Your task to perform on an android device: Search for Mexican restaurants on Maps Image 0: 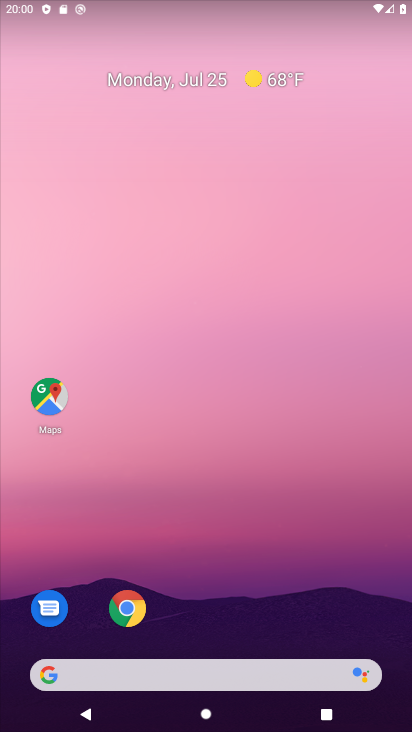
Step 0: click (52, 399)
Your task to perform on an android device: Search for Mexican restaurants on Maps Image 1: 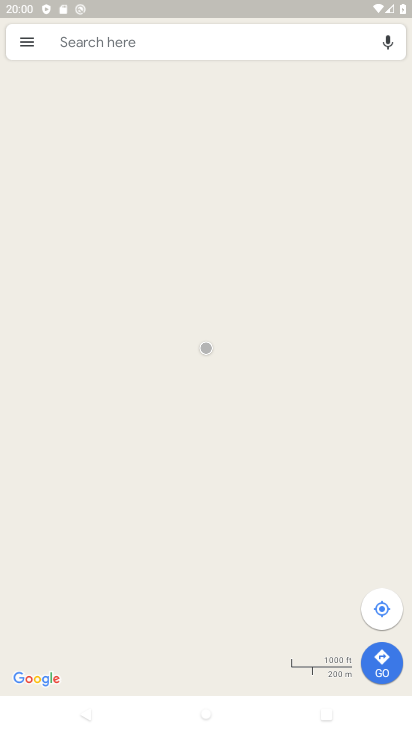
Step 1: click (97, 43)
Your task to perform on an android device: Search for Mexican restaurants on Maps Image 2: 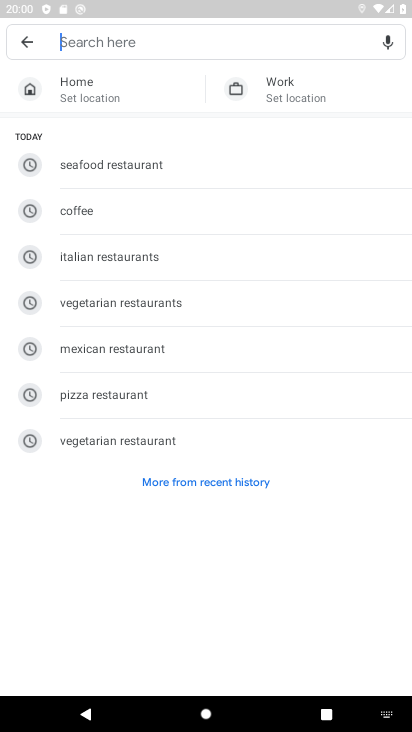
Step 2: type "Mexican restaurants"
Your task to perform on an android device: Search for Mexican restaurants on Maps Image 3: 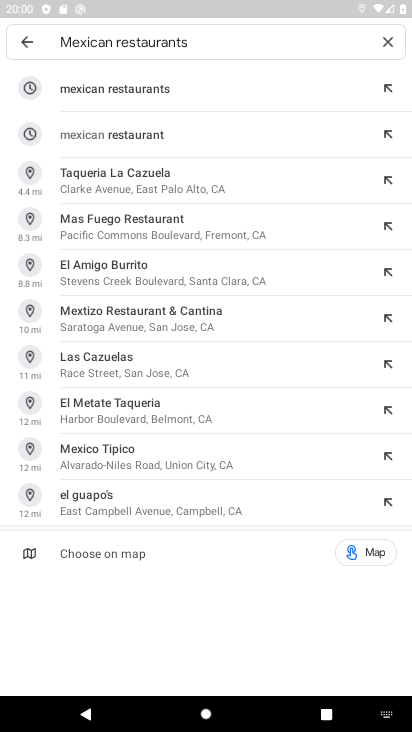
Step 3: click (111, 91)
Your task to perform on an android device: Search for Mexican restaurants on Maps Image 4: 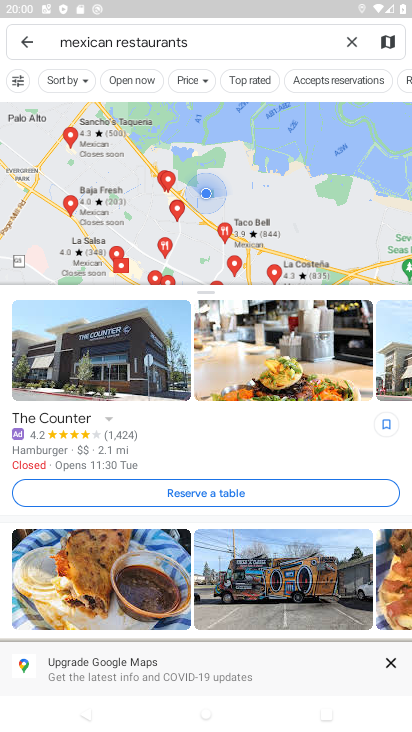
Step 4: task complete